Your task to perform on an android device: What's the news in Japan? Image 0: 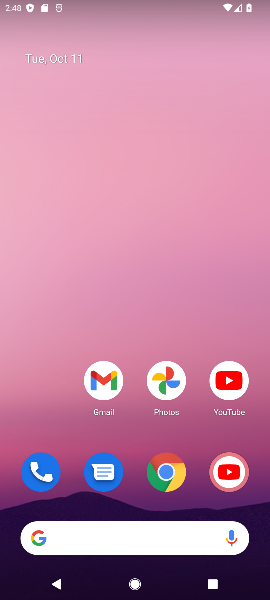
Step 0: click (179, 486)
Your task to perform on an android device: What's the news in Japan? Image 1: 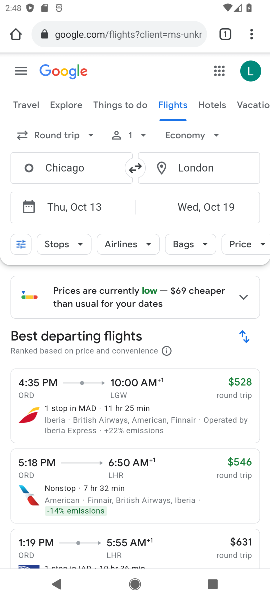
Step 1: click (54, 34)
Your task to perform on an android device: What's the news in Japan? Image 2: 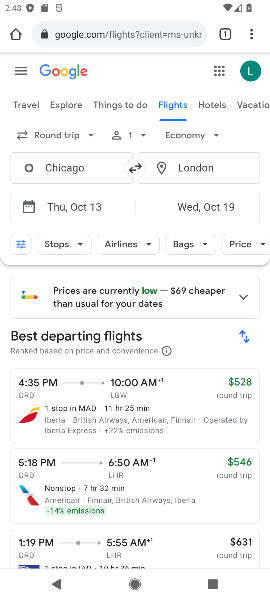
Step 2: type " news in Japan?"
Your task to perform on an android device: What's the news in Japan? Image 3: 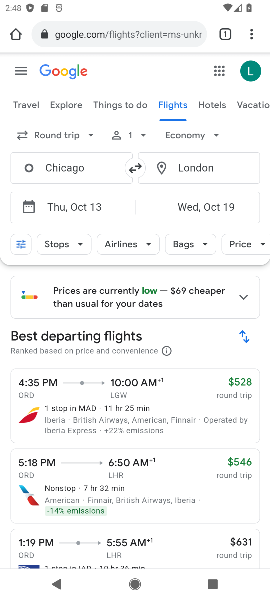
Step 3: click (98, 33)
Your task to perform on an android device: What's the news in Japan? Image 4: 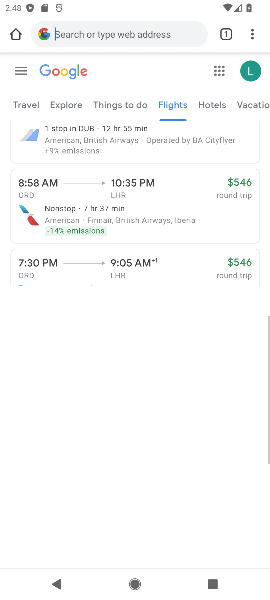
Step 4: click (98, 33)
Your task to perform on an android device: What's the news in Japan? Image 5: 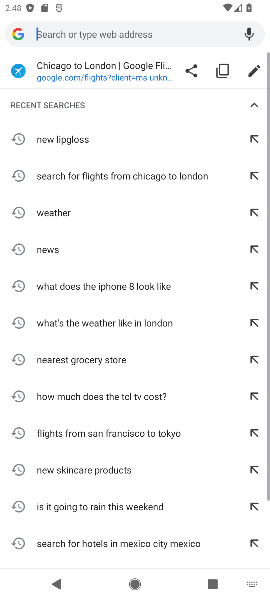
Step 5: click (98, 33)
Your task to perform on an android device: What's the news in Japan? Image 6: 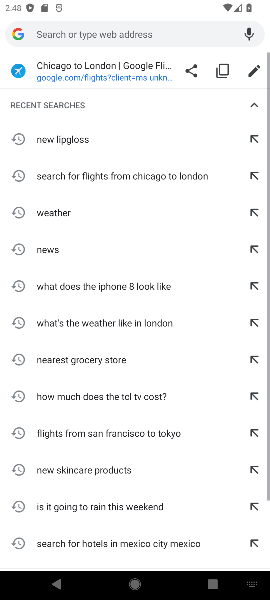
Step 6: click (98, 33)
Your task to perform on an android device: What's the news in Japan? Image 7: 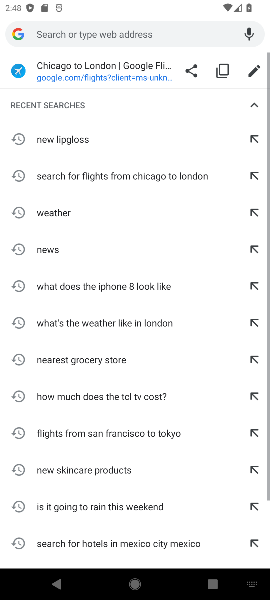
Step 7: click (98, 33)
Your task to perform on an android device: What's the news in Japan? Image 8: 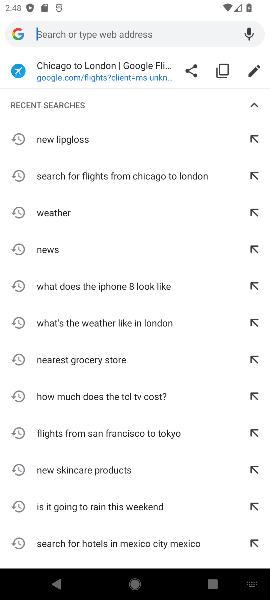
Step 8: type " news in Japan?"
Your task to perform on an android device: What's the news in Japan? Image 9: 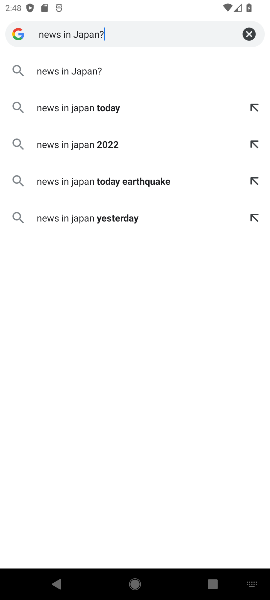
Step 9: click (99, 69)
Your task to perform on an android device: What's the news in Japan? Image 10: 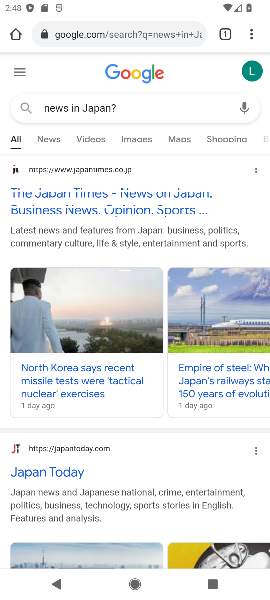
Step 10: click (60, 141)
Your task to perform on an android device: What's the news in Japan? Image 11: 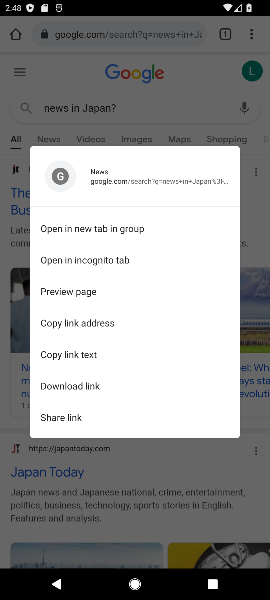
Step 11: click (53, 140)
Your task to perform on an android device: What's the news in Japan? Image 12: 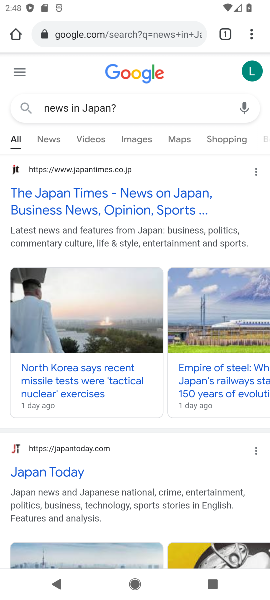
Step 12: click (53, 140)
Your task to perform on an android device: What's the news in Japan? Image 13: 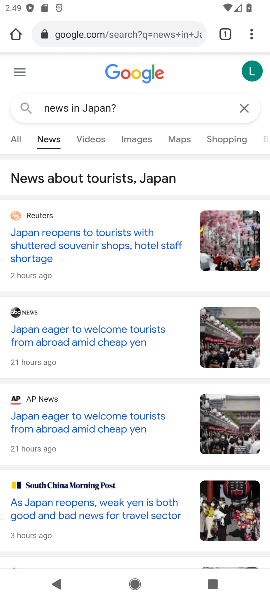
Step 13: task complete